Your task to perform on an android device: Go to Amazon Image 0: 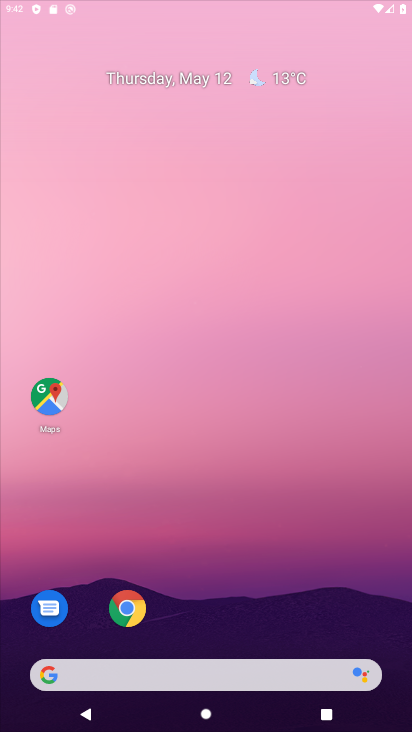
Step 0: click (264, 108)
Your task to perform on an android device: Go to Amazon Image 1: 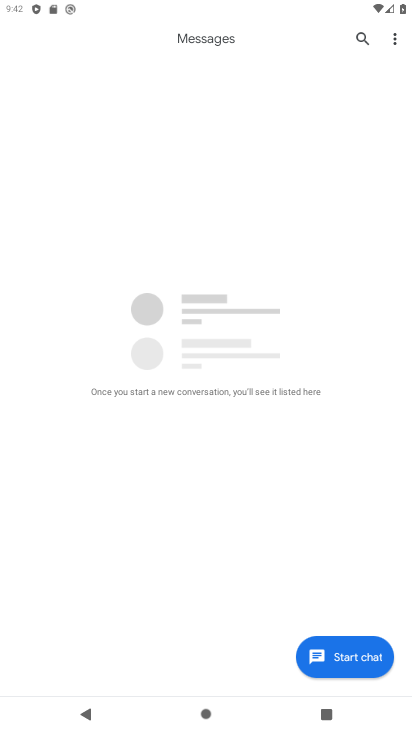
Step 1: press home button
Your task to perform on an android device: Go to Amazon Image 2: 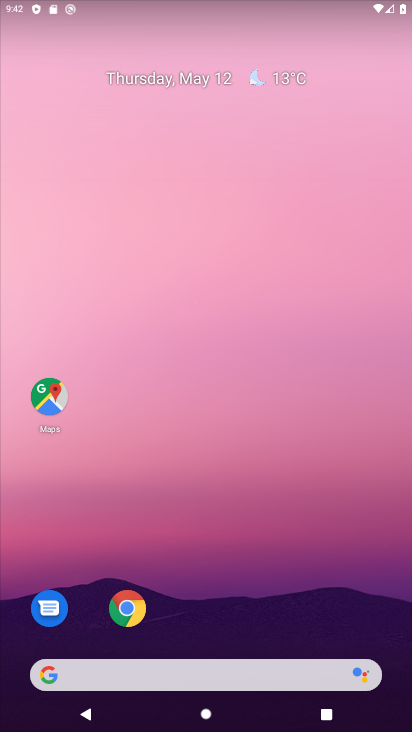
Step 2: click (133, 605)
Your task to perform on an android device: Go to Amazon Image 3: 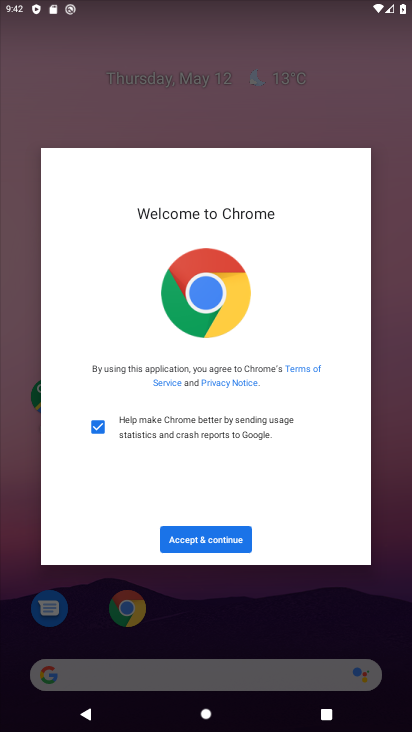
Step 3: click (202, 534)
Your task to perform on an android device: Go to Amazon Image 4: 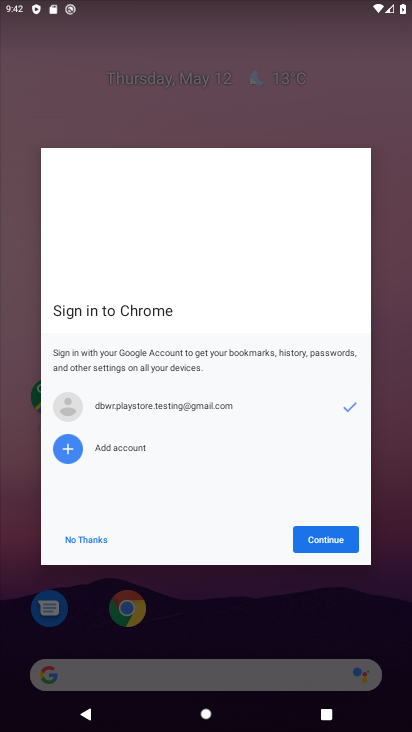
Step 4: click (339, 547)
Your task to perform on an android device: Go to Amazon Image 5: 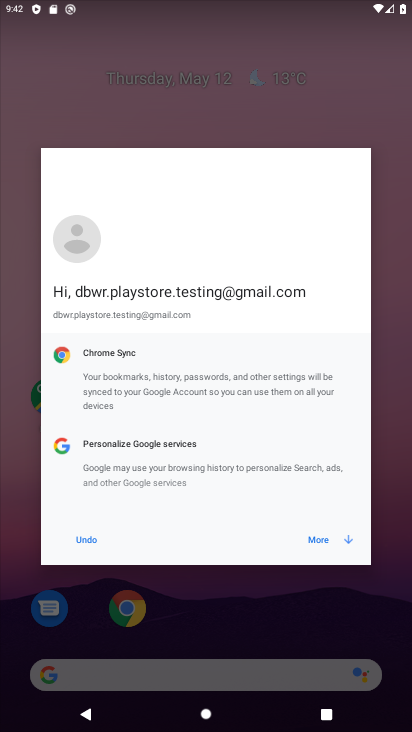
Step 5: click (327, 540)
Your task to perform on an android device: Go to Amazon Image 6: 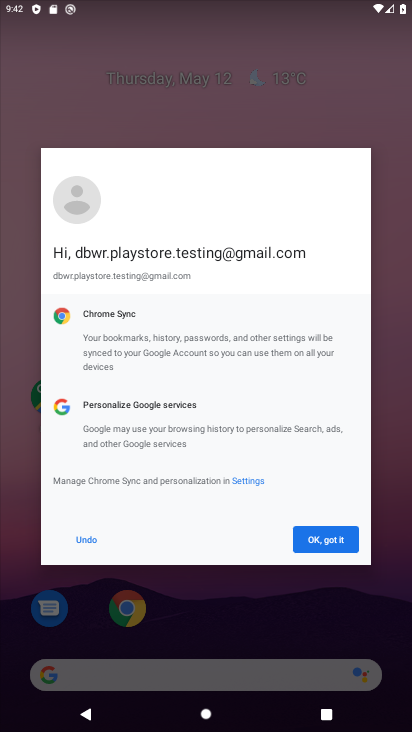
Step 6: click (327, 540)
Your task to perform on an android device: Go to Amazon Image 7: 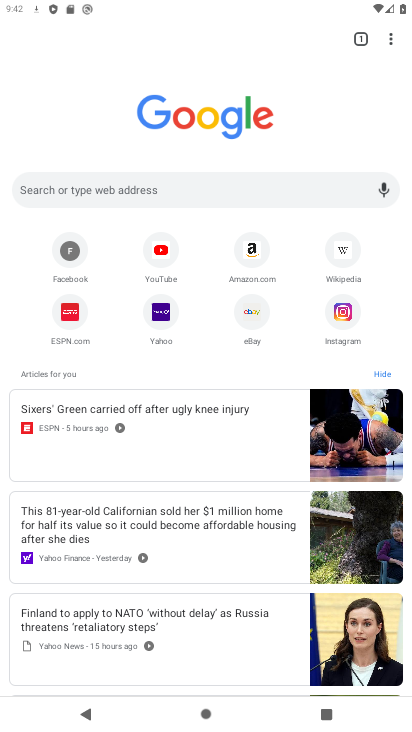
Step 7: click (252, 254)
Your task to perform on an android device: Go to Amazon Image 8: 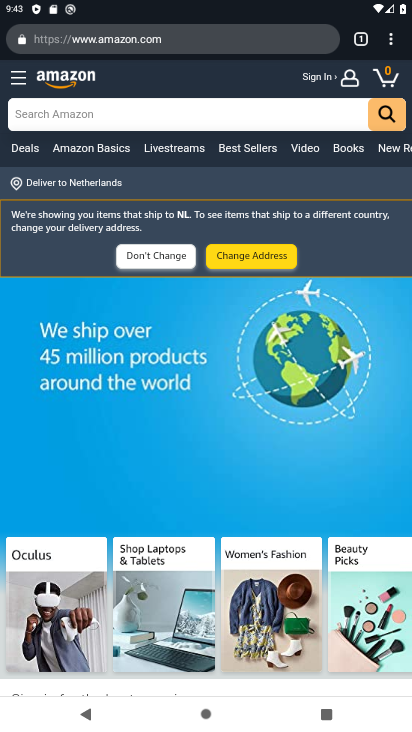
Step 8: task complete